Your task to perform on an android device: change the clock display to digital Image 0: 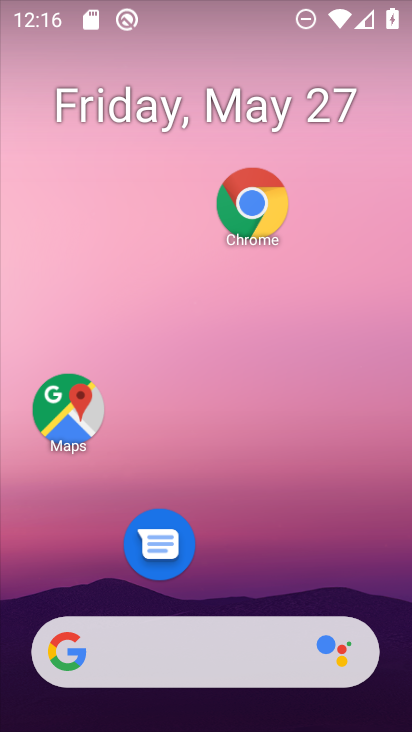
Step 0: drag from (205, 607) to (182, 249)
Your task to perform on an android device: change the clock display to digital Image 1: 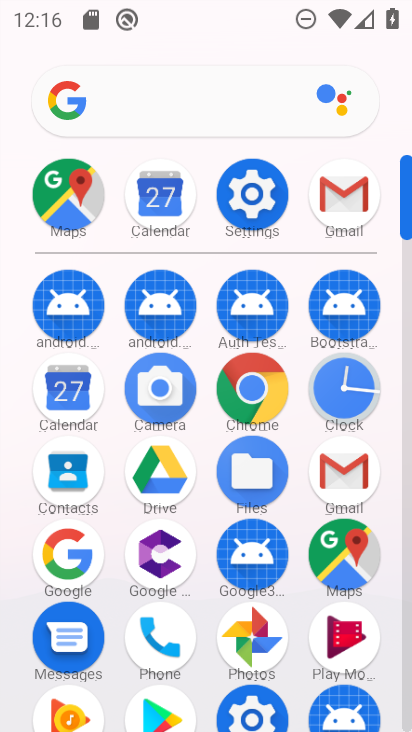
Step 1: click (350, 400)
Your task to perform on an android device: change the clock display to digital Image 2: 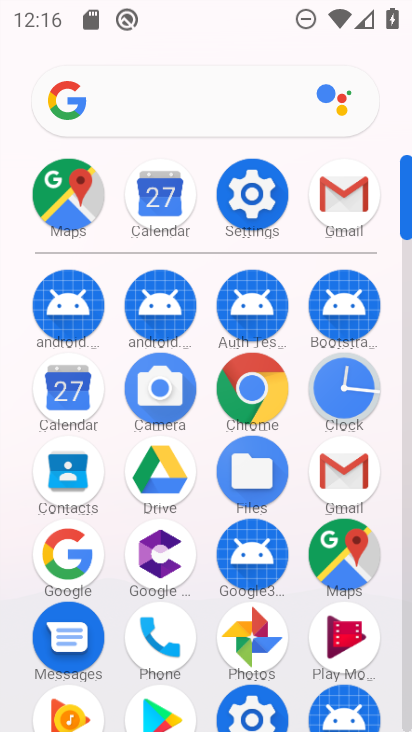
Step 2: click (350, 400)
Your task to perform on an android device: change the clock display to digital Image 3: 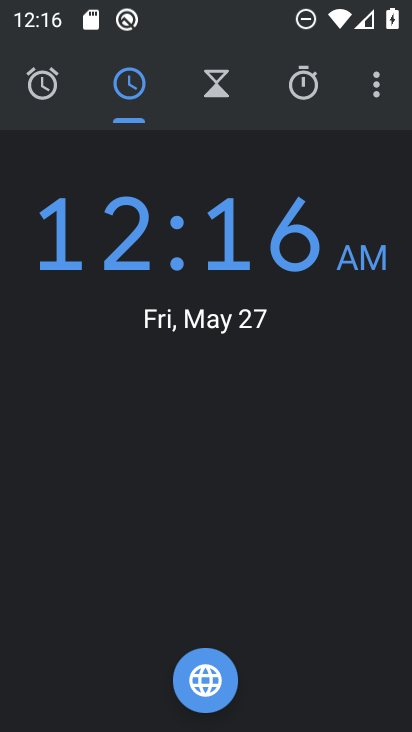
Step 3: click (379, 82)
Your task to perform on an android device: change the clock display to digital Image 4: 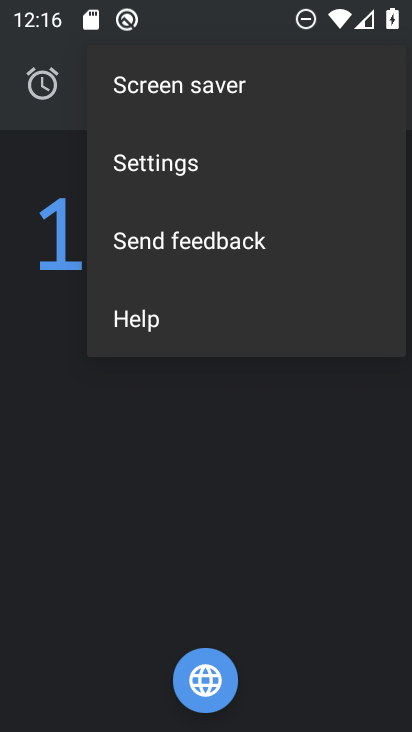
Step 4: click (176, 155)
Your task to perform on an android device: change the clock display to digital Image 5: 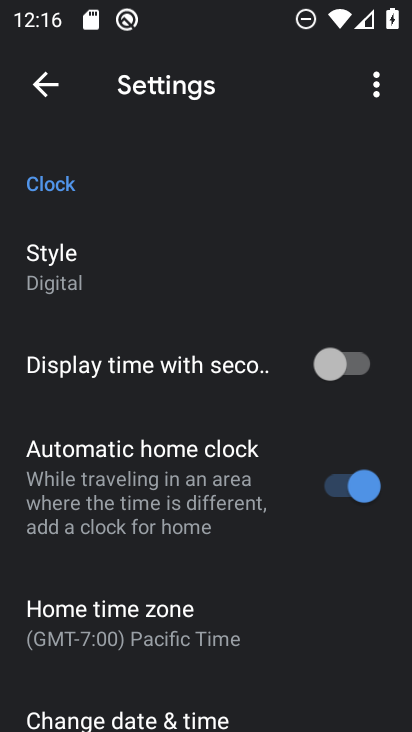
Step 5: click (64, 282)
Your task to perform on an android device: change the clock display to digital Image 6: 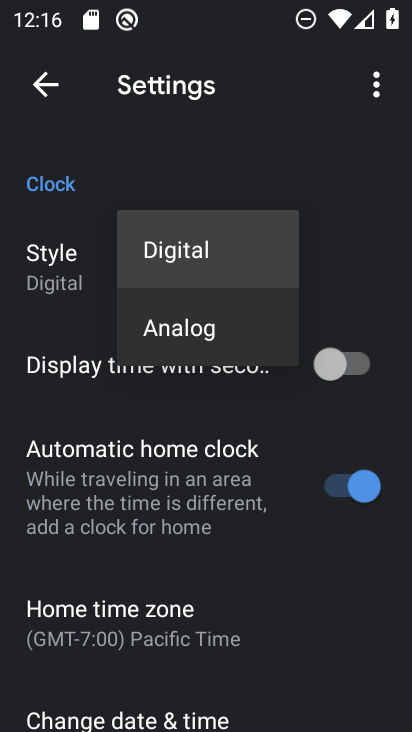
Step 6: click (205, 279)
Your task to perform on an android device: change the clock display to digital Image 7: 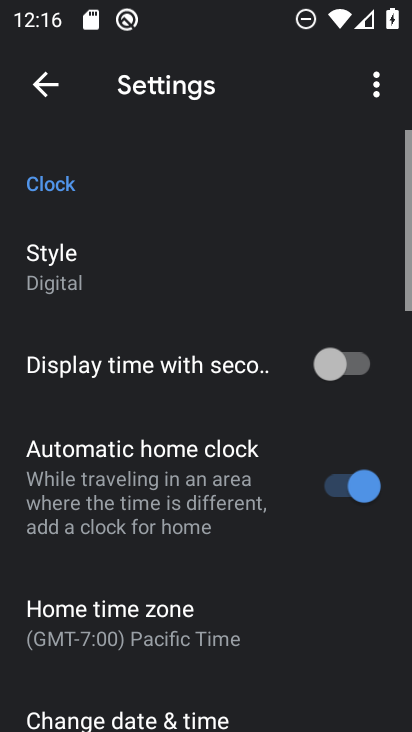
Step 7: task complete